Your task to perform on an android device: Open the phone app and click the voicemail tab. Image 0: 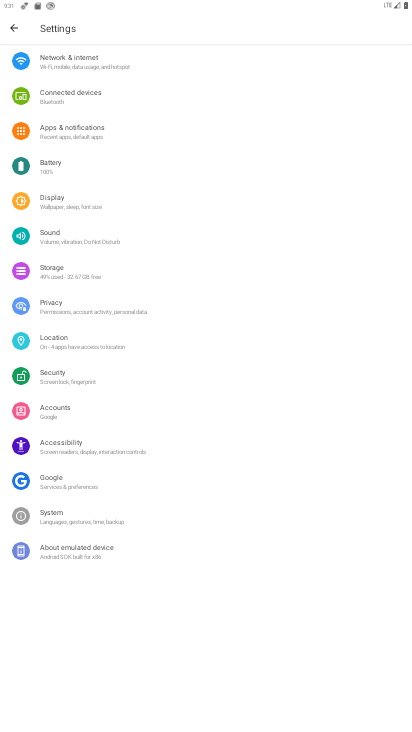
Step 0: press home button
Your task to perform on an android device: Open the phone app and click the voicemail tab. Image 1: 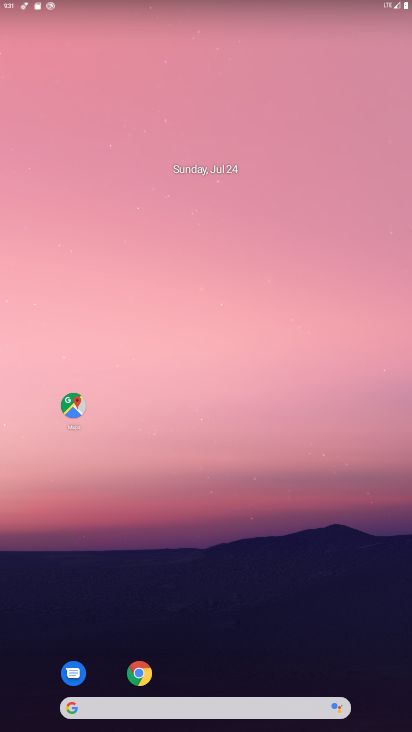
Step 1: drag from (198, 637) to (213, 87)
Your task to perform on an android device: Open the phone app and click the voicemail tab. Image 2: 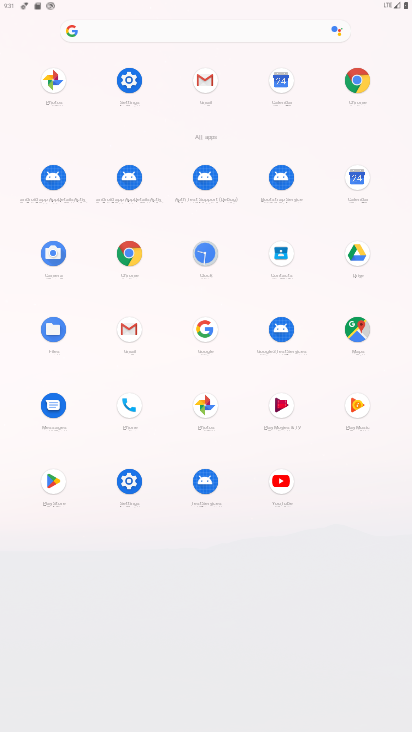
Step 2: click (125, 411)
Your task to perform on an android device: Open the phone app and click the voicemail tab. Image 3: 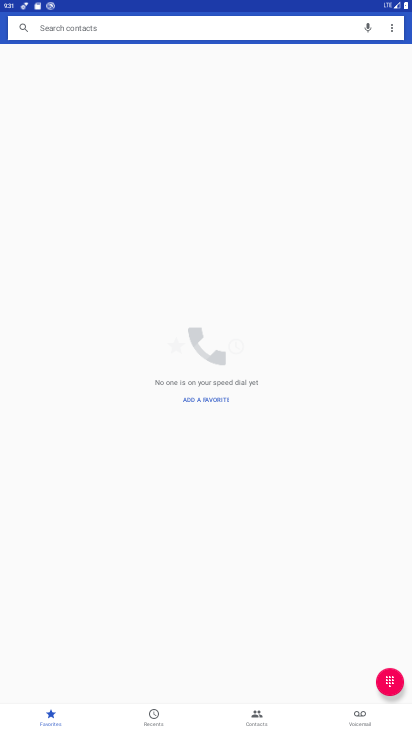
Step 3: click (366, 715)
Your task to perform on an android device: Open the phone app and click the voicemail tab. Image 4: 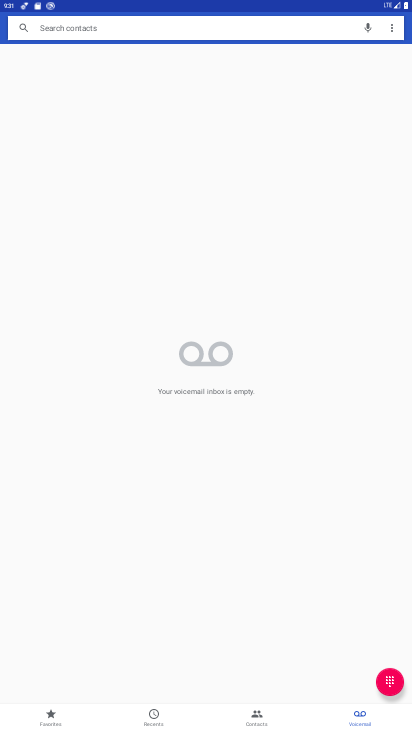
Step 4: task complete